Your task to perform on an android device: Open the Play Movies app and select the watchlist tab. Image 0: 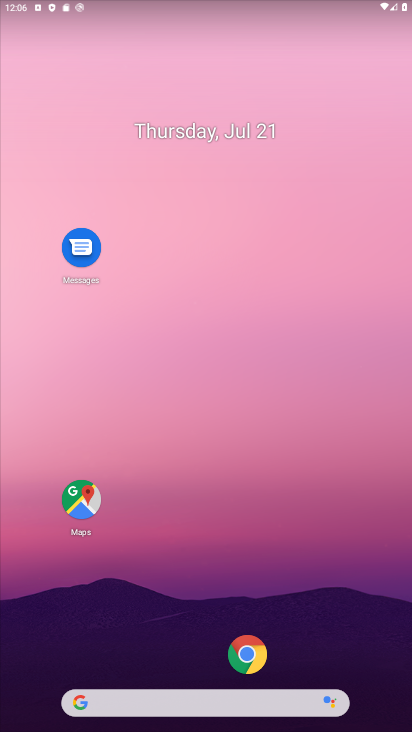
Step 0: drag from (165, 626) to (159, 78)
Your task to perform on an android device: Open the Play Movies app and select the watchlist tab. Image 1: 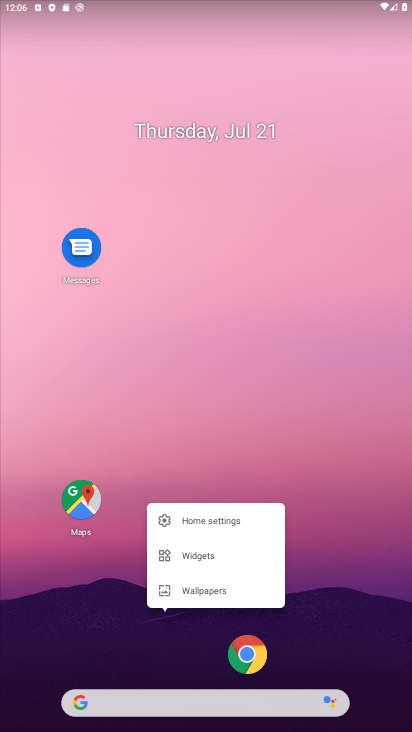
Step 1: drag from (119, 654) to (106, 148)
Your task to perform on an android device: Open the Play Movies app and select the watchlist tab. Image 2: 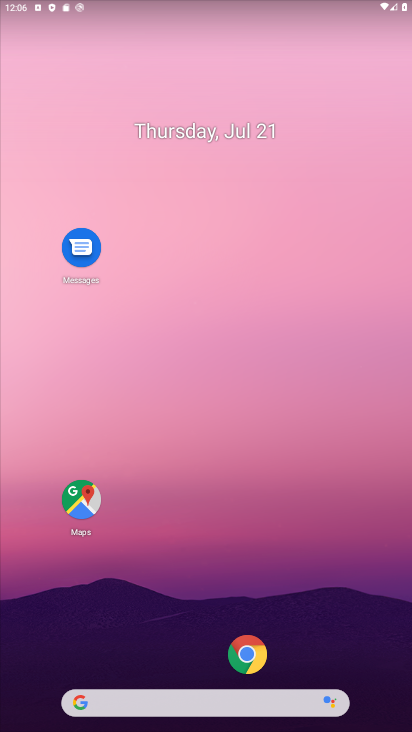
Step 2: drag from (146, 664) to (154, 106)
Your task to perform on an android device: Open the Play Movies app and select the watchlist tab. Image 3: 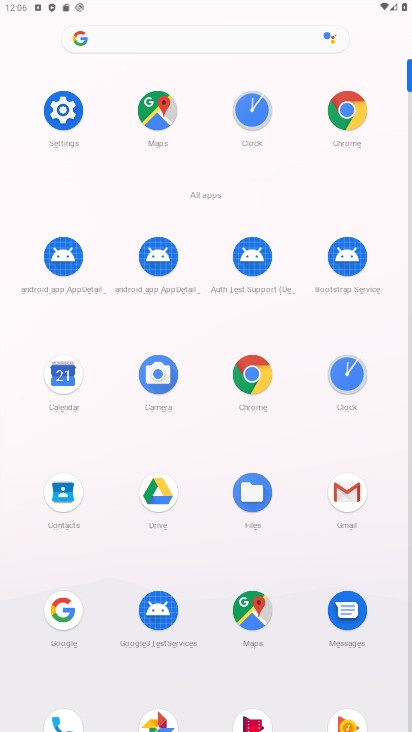
Step 3: click (244, 712)
Your task to perform on an android device: Open the Play Movies app and select the watchlist tab. Image 4: 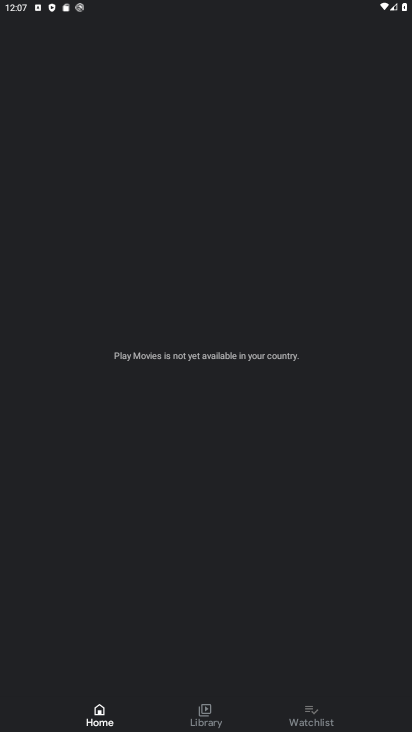
Step 4: click (317, 722)
Your task to perform on an android device: Open the Play Movies app and select the watchlist tab. Image 5: 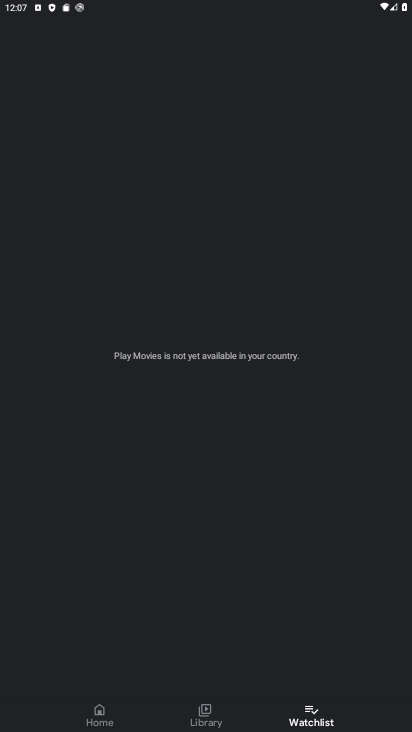
Step 5: task complete